Your task to perform on an android device: What is the news today? Image 0: 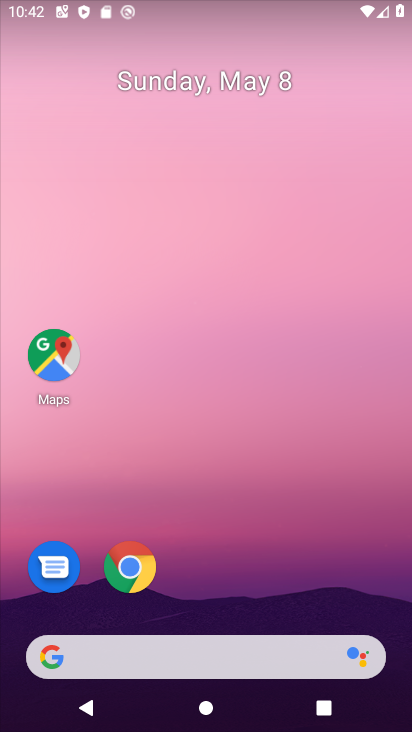
Step 0: press home button
Your task to perform on an android device: What is the news today? Image 1: 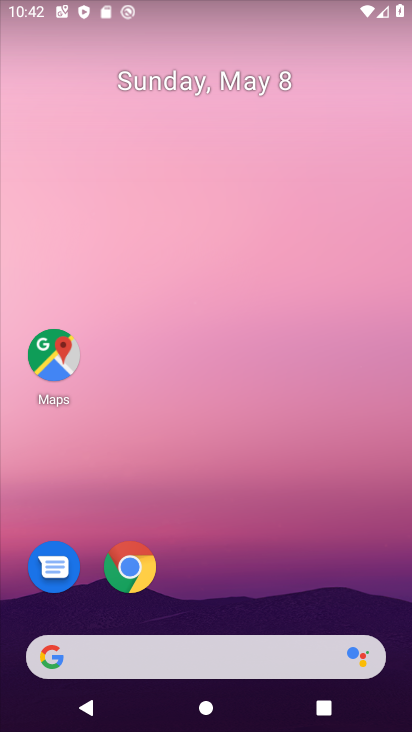
Step 1: task complete